Your task to perform on an android device: change the clock display to analog Image 0: 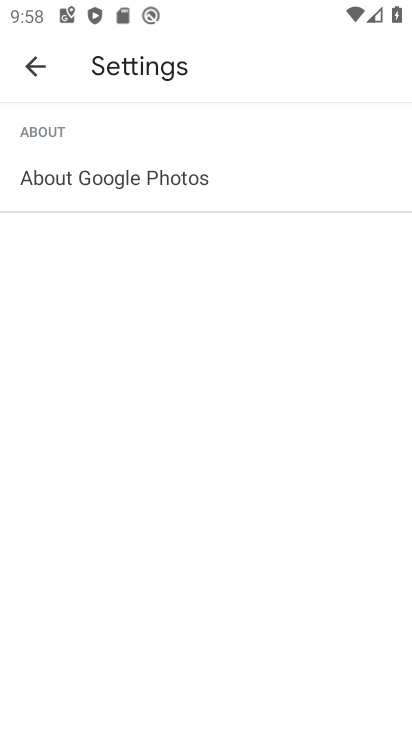
Step 0: press home button
Your task to perform on an android device: change the clock display to analog Image 1: 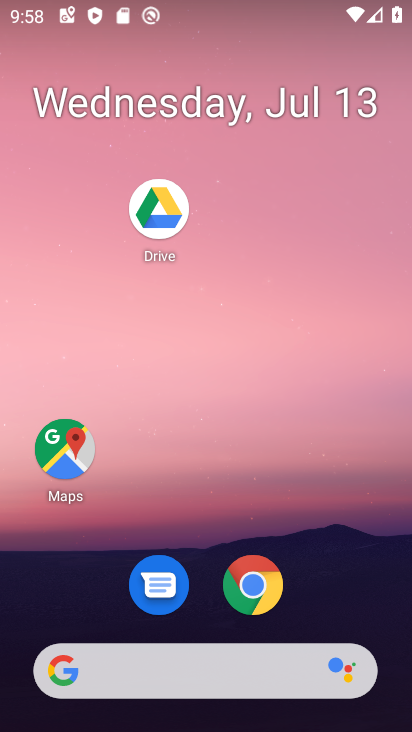
Step 1: drag from (200, 667) to (290, 106)
Your task to perform on an android device: change the clock display to analog Image 2: 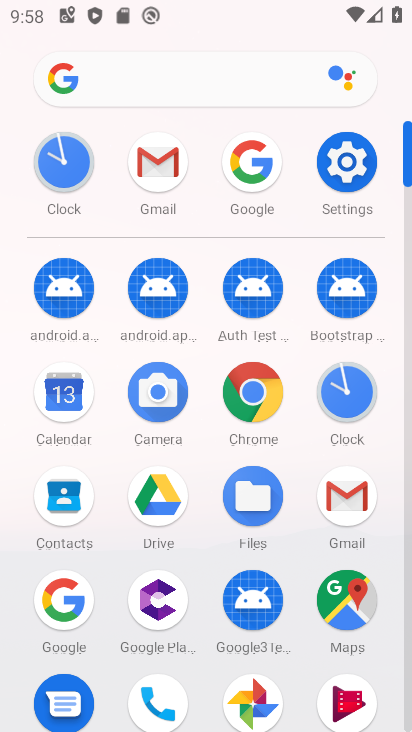
Step 2: click (347, 385)
Your task to perform on an android device: change the clock display to analog Image 3: 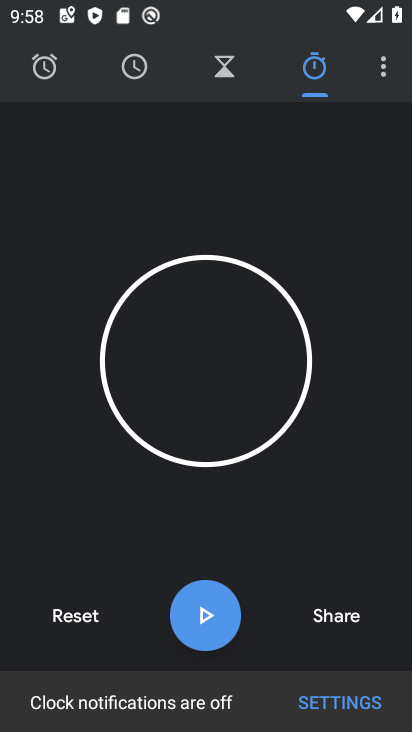
Step 3: click (379, 62)
Your task to perform on an android device: change the clock display to analog Image 4: 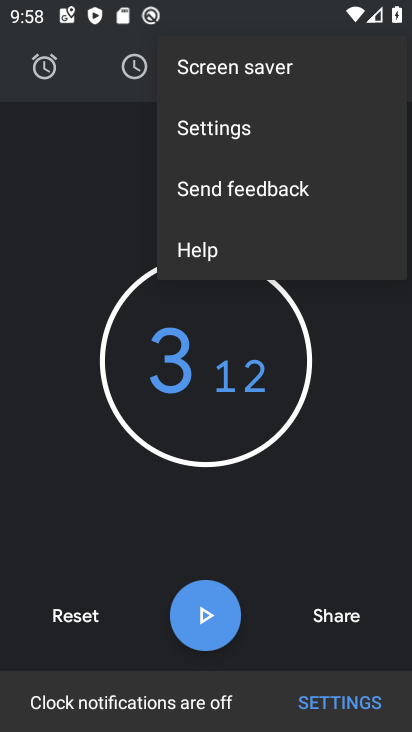
Step 4: click (232, 128)
Your task to perform on an android device: change the clock display to analog Image 5: 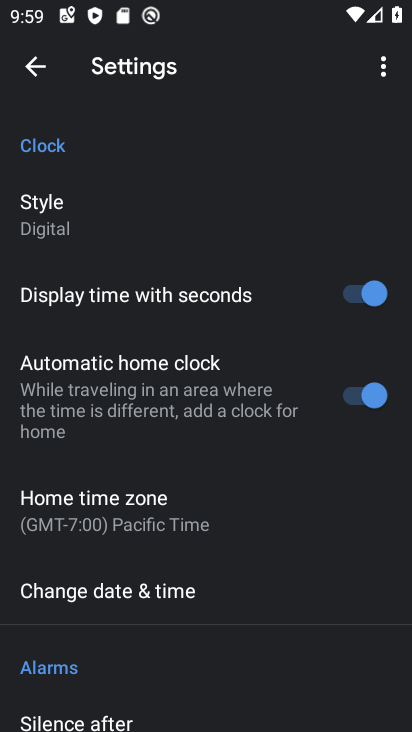
Step 5: click (66, 232)
Your task to perform on an android device: change the clock display to analog Image 6: 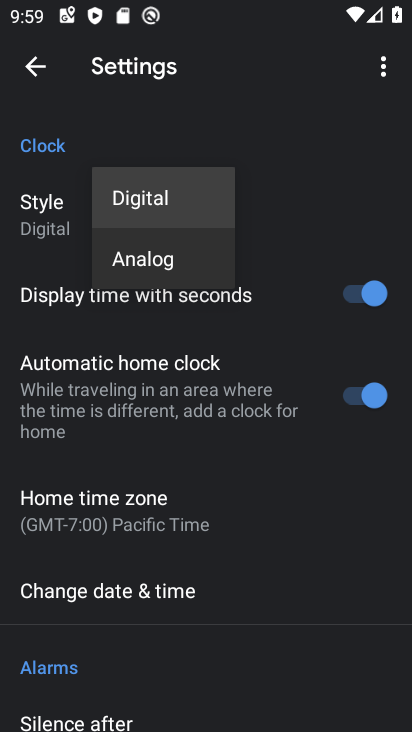
Step 6: click (125, 259)
Your task to perform on an android device: change the clock display to analog Image 7: 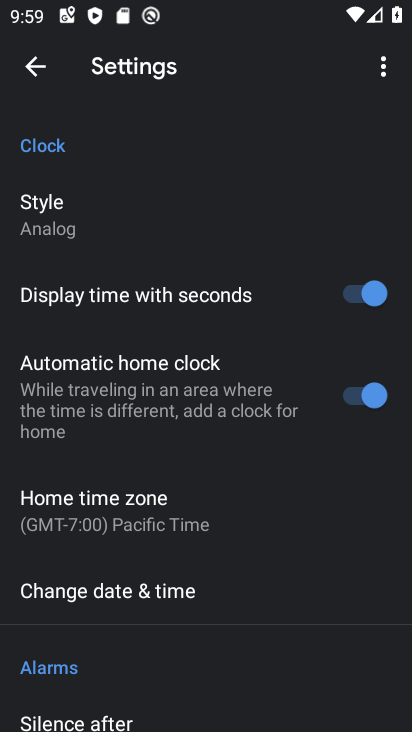
Step 7: task complete